Your task to perform on an android device: Open Chrome and go to the settings page Image 0: 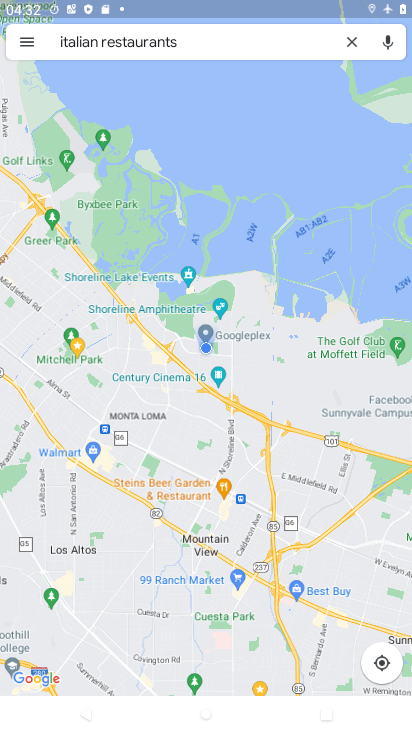
Step 0: press home button
Your task to perform on an android device: Open Chrome and go to the settings page Image 1: 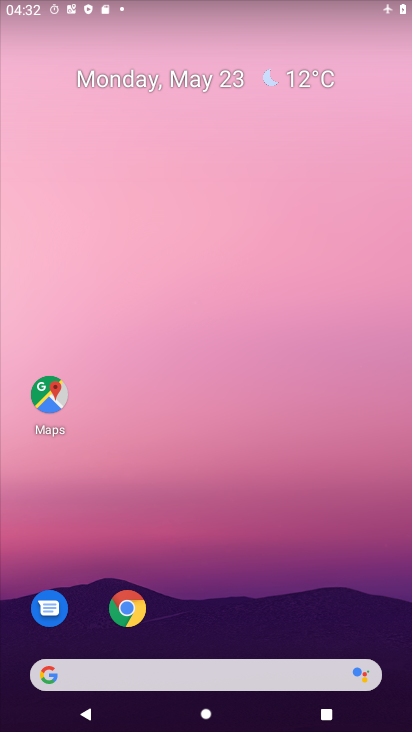
Step 1: click (127, 607)
Your task to perform on an android device: Open Chrome and go to the settings page Image 2: 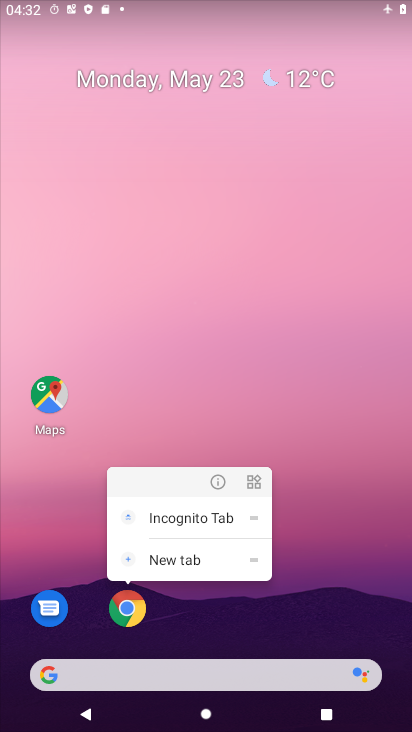
Step 2: click (134, 612)
Your task to perform on an android device: Open Chrome and go to the settings page Image 3: 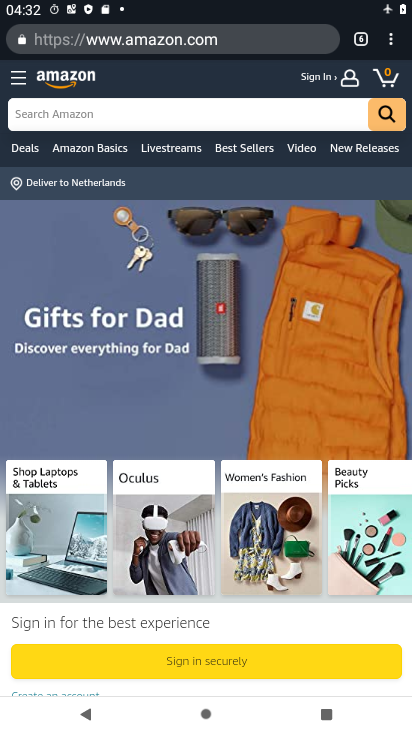
Step 3: click (393, 35)
Your task to perform on an android device: Open Chrome and go to the settings page Image 4: 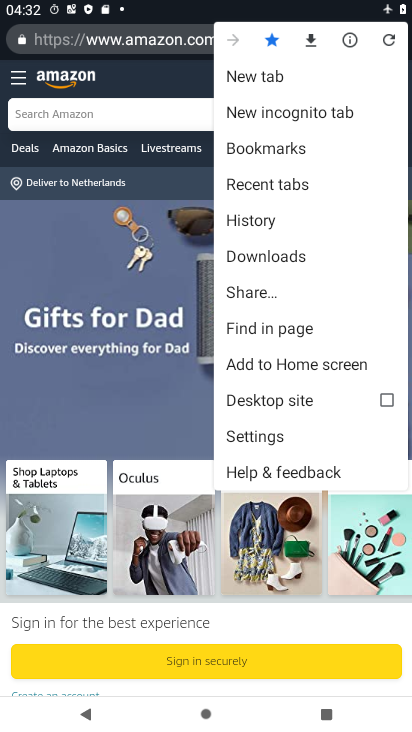
Step 4: click (286, 430)
Your task to perform on an android device: Open Chrome and go to the settings page Image 5: 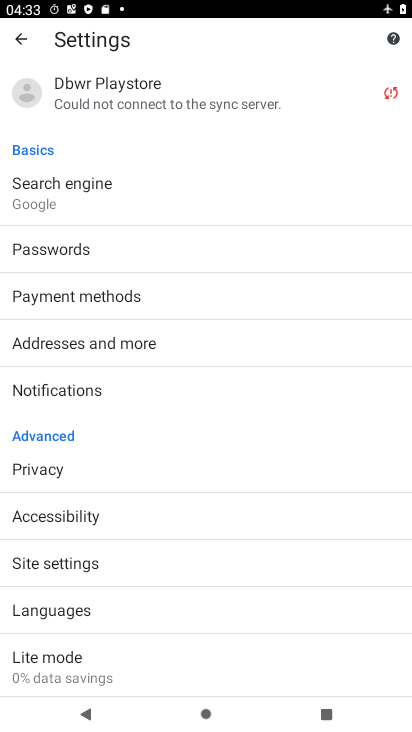
Step 5: task complete